Your task to perform on an android device: empty trash in the gmail app Image 0: 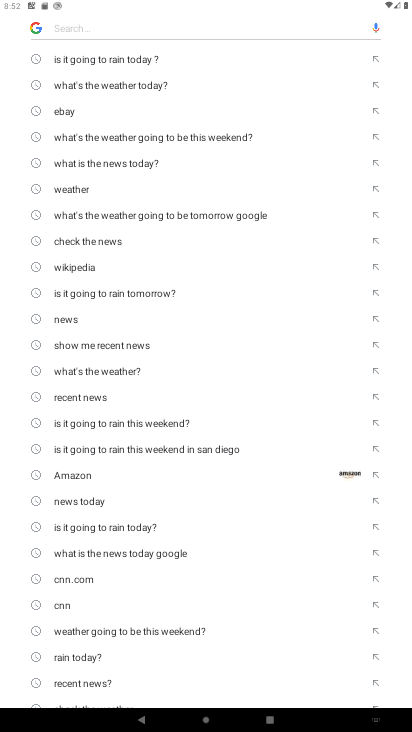
Step 0: press home button
Your task to perform on an android device: empty trash in the gmail app Image 1: 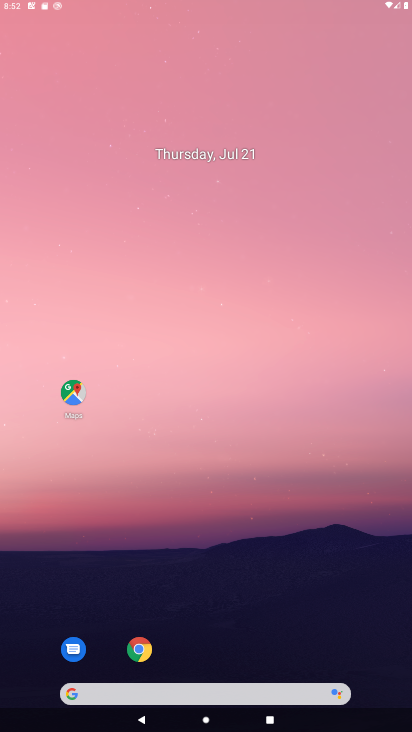
Step 1: drag from (179, 597) to (215, 86)
Your task to perform on an android device: empty trash in the gmail app Image 2: 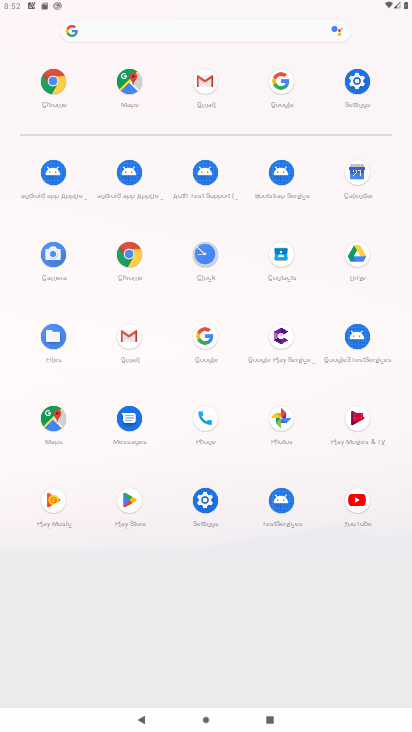
Step 2: click (203, 78)
Your task to perform on an android device: empty trash in the gmail app Image 3: 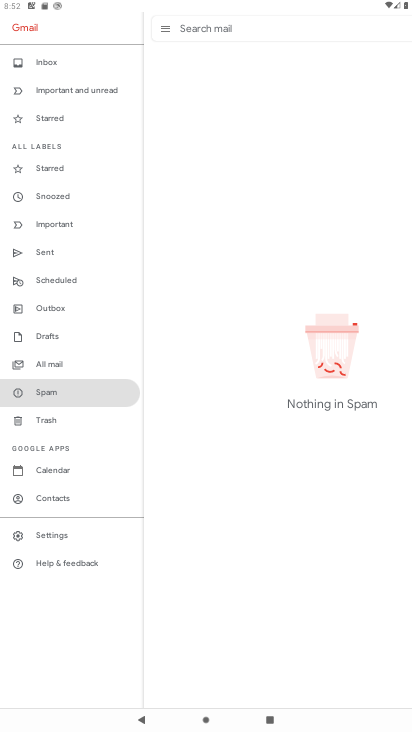
Step 3: click (42, 426)
Your task to perform on an android device: empty trash in the gmail app Image 4: 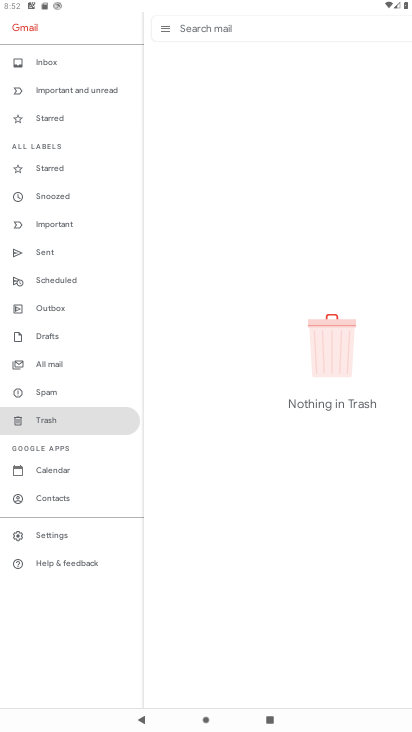
Step 4: task complete